Your task to perform on an android device: Search for "jbl flip 4" on bestbuy.com, select the first entry, and add it to the cart. Image 0: 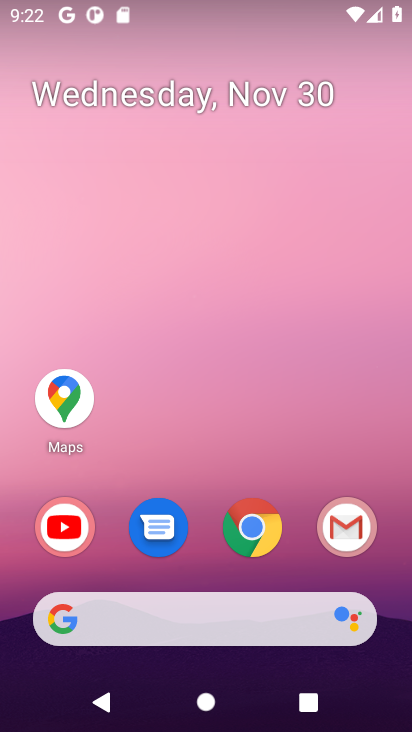
Step 0: click (258, 530)
Your task to perform on an android device: Search for "jbl flip 4" on bestbuy.com, select the first entry, and add it to the cart. Image 1: 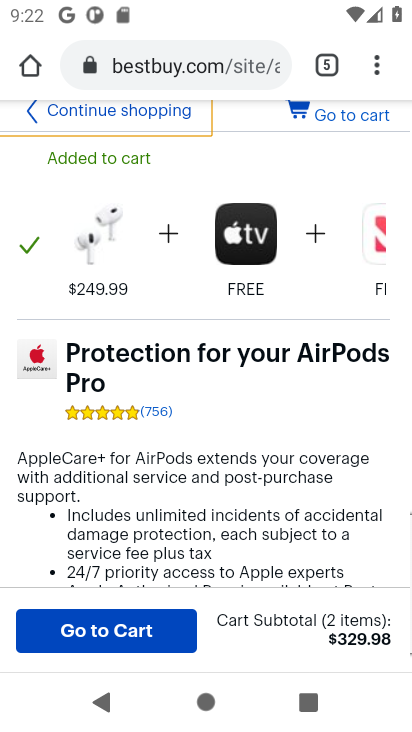
Step 1: drag from (260, 162) to (345, 726)
Your task to perform on an android device: Search for "jbl flip 4" on bestbuy.com, select the first entry, and add it to the cart. Image 2: 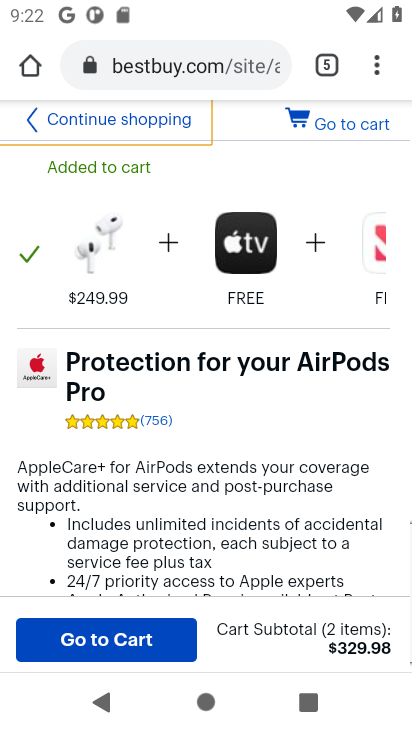
Step 2: drag from (235, 121) to (283, 669)
Your task to perform on an android device: Search for "jbl flip 4" on bestbuy.com, select the first entry, and add it to the cart. Image 3: 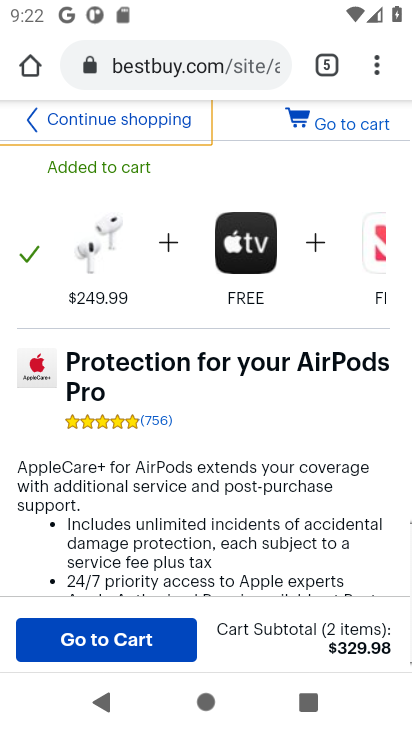
Step 3: drag from (254, 115) to (336, 658)
Your task to perform on an android device: Search for "jbl flip 4" on bestbuy.com, select the first entry, and add it to the cart. Image 4: 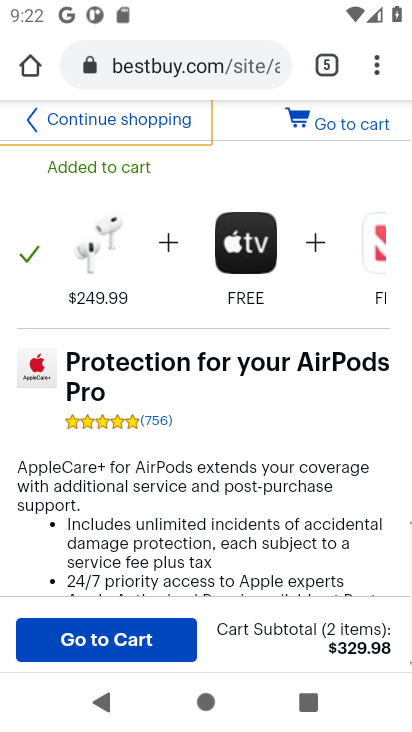
Step 4: press back button
Your task to perform on an android device: Search for "jbl flip 4" on bestbuy.com, select the first entry, and add it to the cart. Image 5: 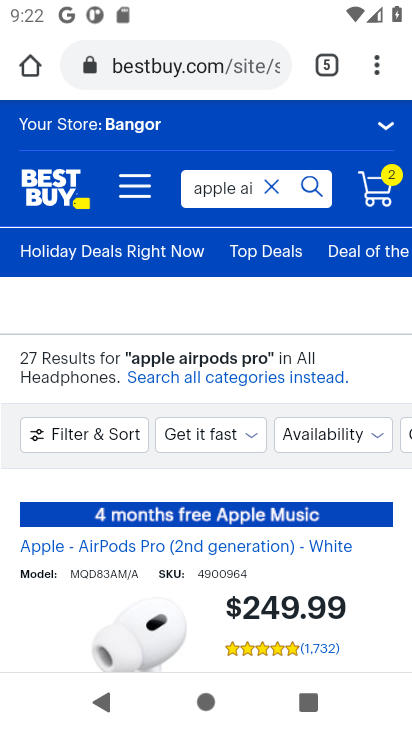
Step 5: click (270, 180)
Your task to perform on an android device: Search for "jbl flip 4" on bestbuy.com, select the first entry, and add it to the cart. Image 6: 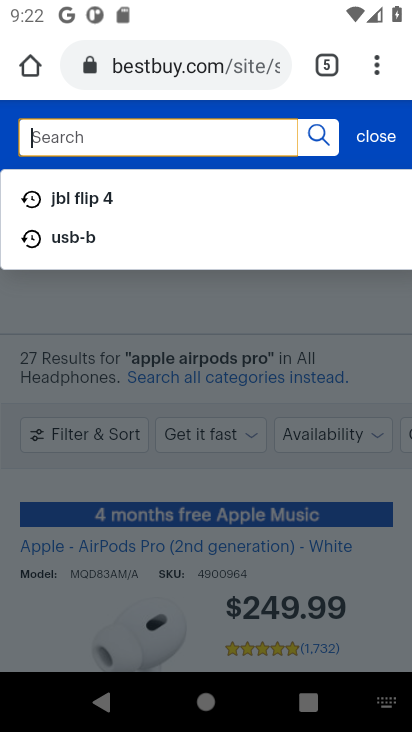
Step 6: type "jbl flip 4"
Your task to perform on an android device: Search for "jbl flip 4" on bestbuy.com, select the first entry, and add it to the cart. Image 7: 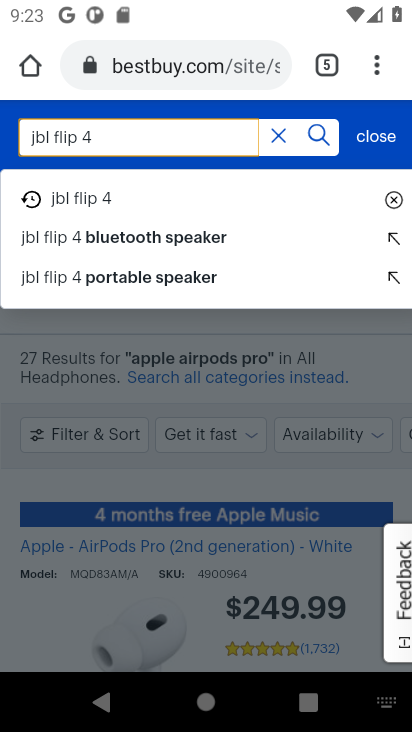
Step 7: click (95, 193)
Your task to perform on an android device: Search for "jbl flip 4" on bestbuy.com, select the first entry, and add it to the cart. Image 8: 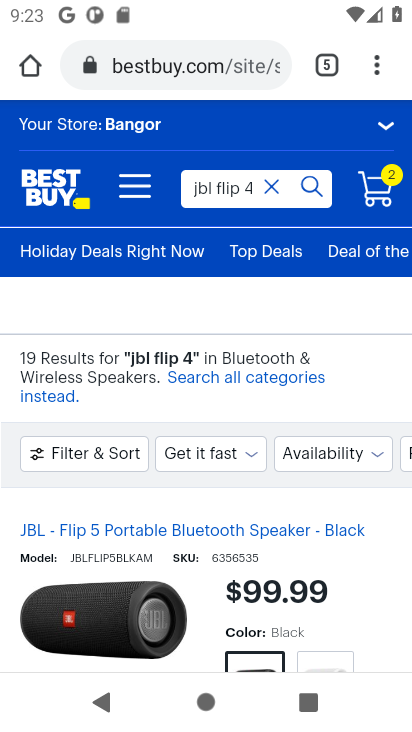
Step 8: drag from (144, 537) to (189, 103)
Your task to perform on an android device: Search for "jbl flip 4" on bestbuy.com, select the first entry, and add it to the cart. Image 9: 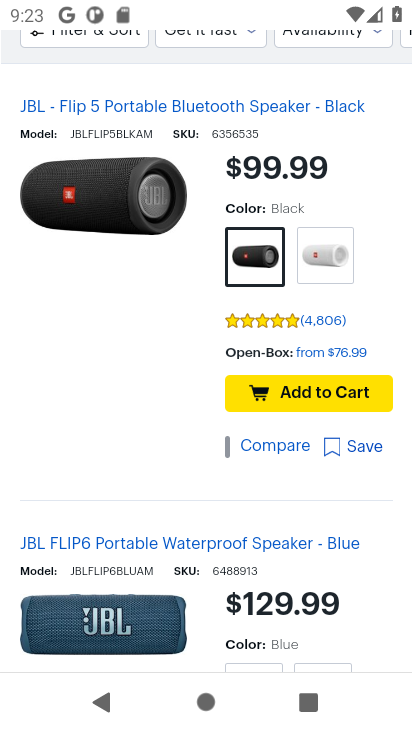
Step 9: drag from (203, 580) to (226, 58)
Your task to perform on an android device: Search for "jbl flip 4" on bestbuy.com, select the first entry, and add it to the cart. Image 10: 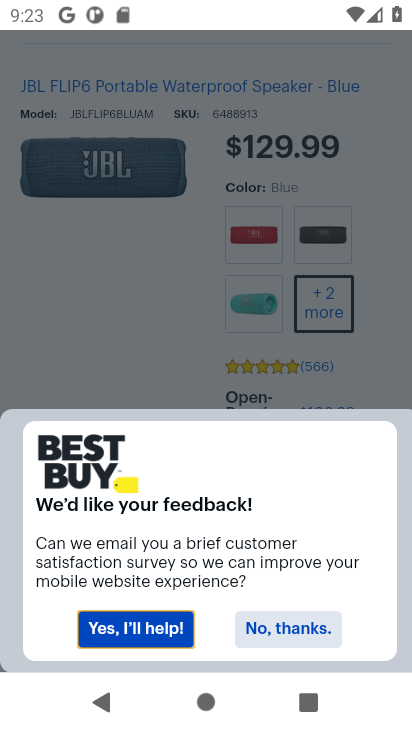
Step 10: drag from (224, 601) to (221, 160)
Your task to perform on an android device: Search for "jbl flip 4" on bestbuy.com, select the first entry, and add it to the cart. Image 11: 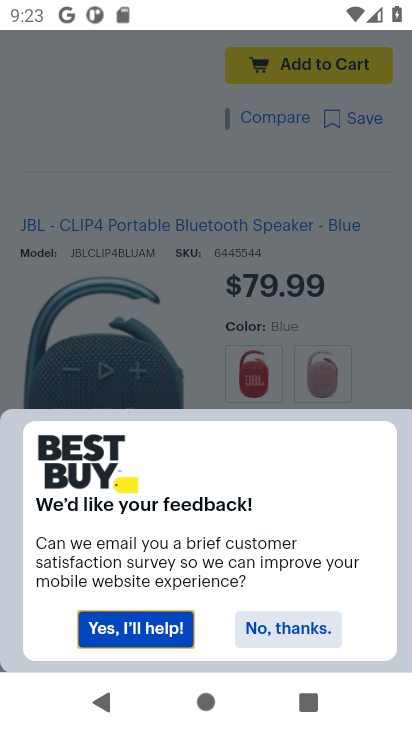
Step 11: click (270, 630)
Your task to perform on an android device: Search for "jbl flip 4" on bestbuy.com, select the first entry, and add it to the cart. Image 12: 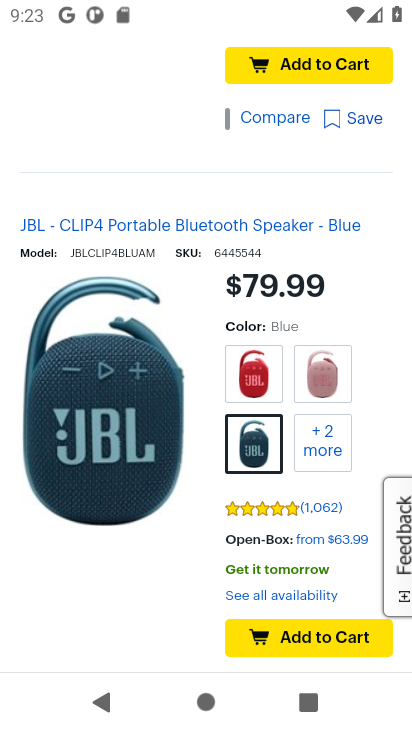
Step 12: task complete